Your task to perform on an android device: search for starred emails in the gmail app Image 0: 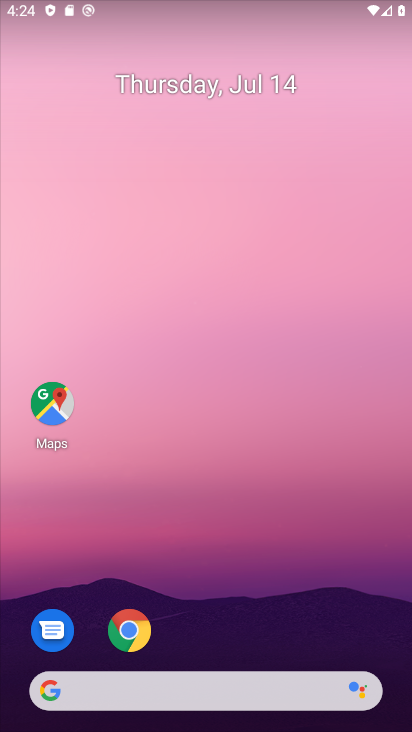
Step 0: drag from (214, 689) to (172, 324)
Your task to perform on an android device: search for starred emails in the gmail app Image 1: 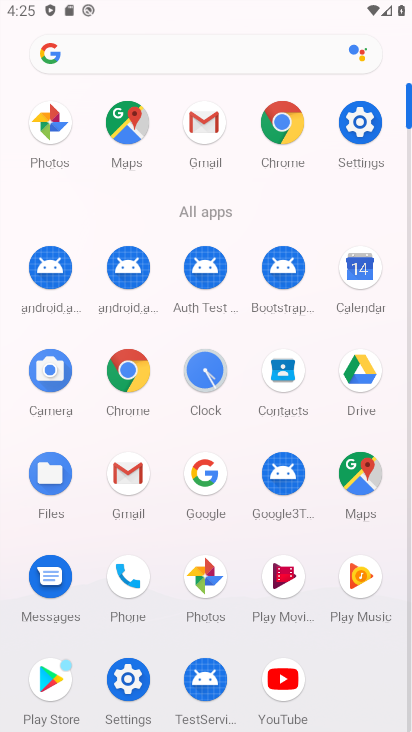
Step 1: click (123, 460)
Your task to perform on an android device: search for starred emails in the gmail app Image 2: 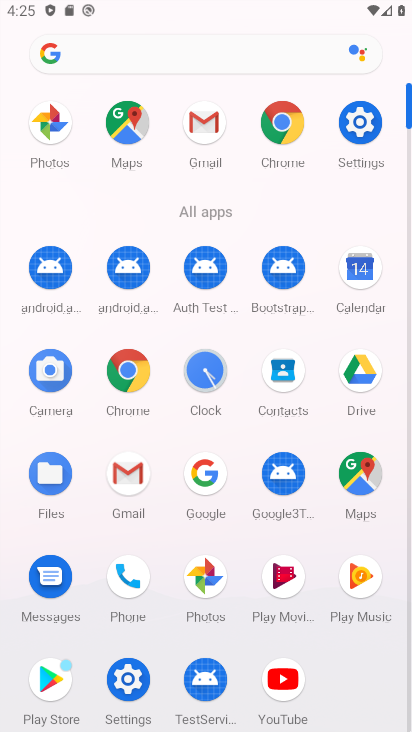
Step 2: click (124, 460)
Your task to perform on an android device: search for starred emails in the gmail app Image 3: 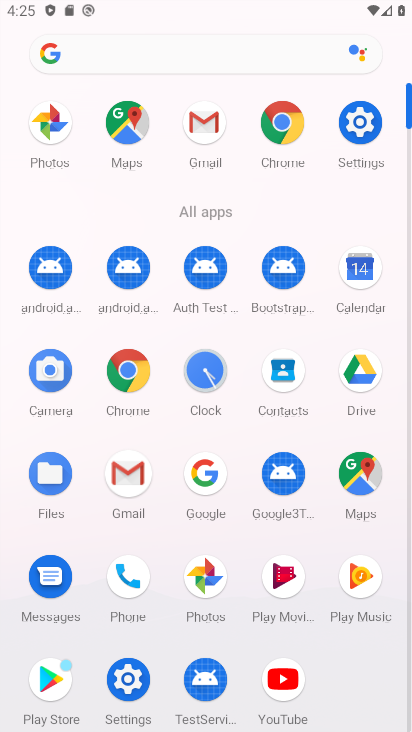
Step 3: click (125, 459)
Your task to perform on an android device: search for starred emails in the gmail app Image 4: 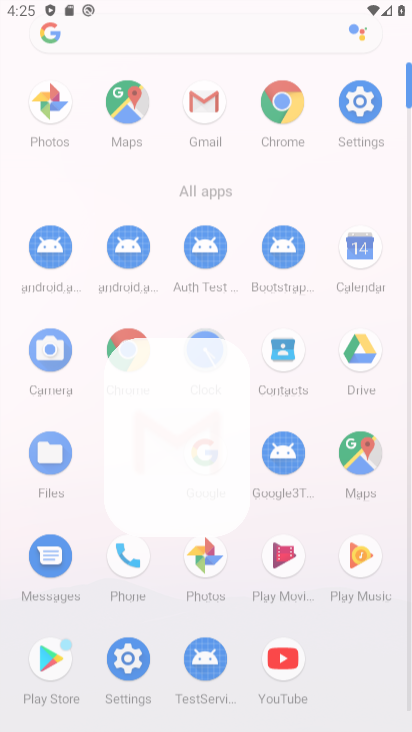
Step 4: click (129, 458)
Your task to perform on an android device: search for starred emails in the gmail app Image 5: 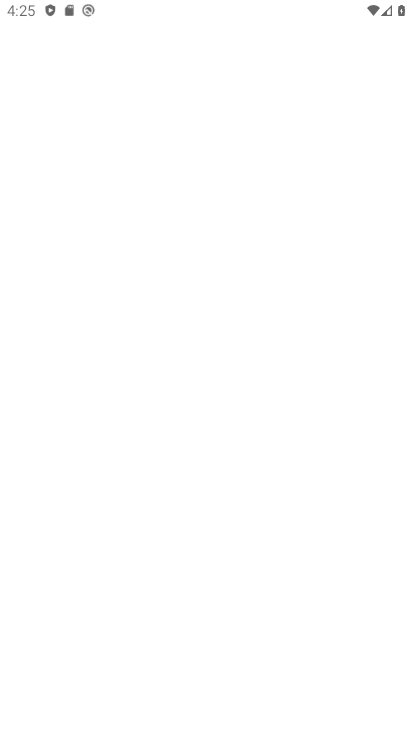
Step 5: click (129, 458)
Your task to perform on an android device: search for starred emails in the gmail app Image 6: 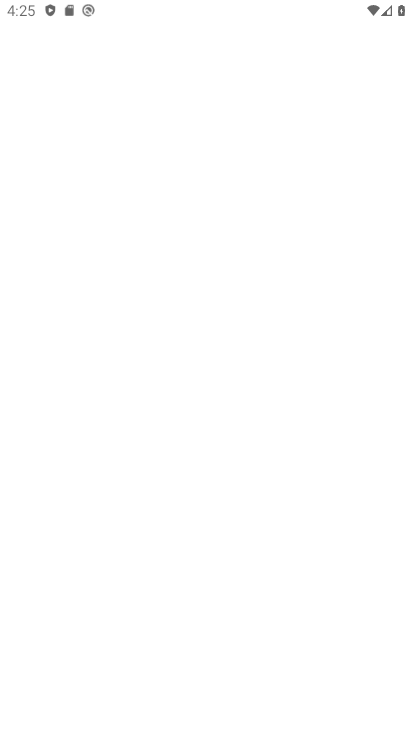
Step 6: click (130, 458)
Your task to perform on an android device: search for starred emails in the gmail app Image 7: 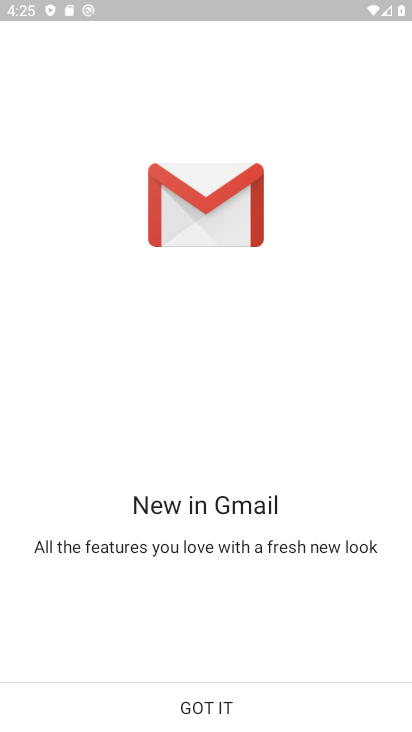
Step 7: click (211, 709)
Your task to perform on an android device: search for starred emails in the gmail app Image 8: 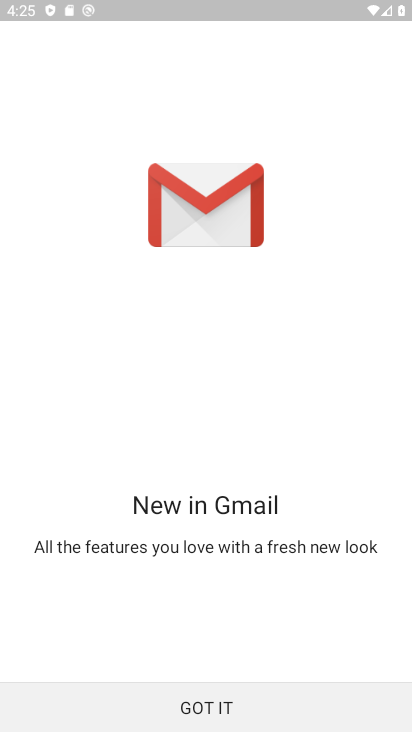
Step 8: click (211, 709)
Your task to perform on an android device: search for starred emails in the gmail app Image 9: 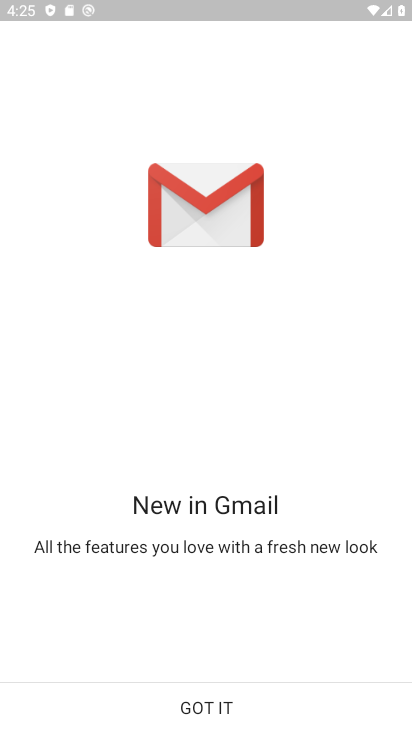
Step 9: click (211, 708)
Your task to perform on an android device: search for starred emails in the gmail app Image 10: 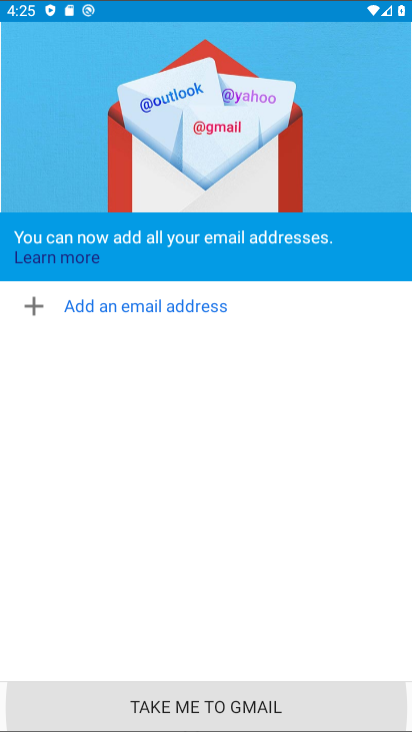
Step 10: click (211, 708)
Your task to perform on an android device: search for starred emails in the gmail app Image 11: 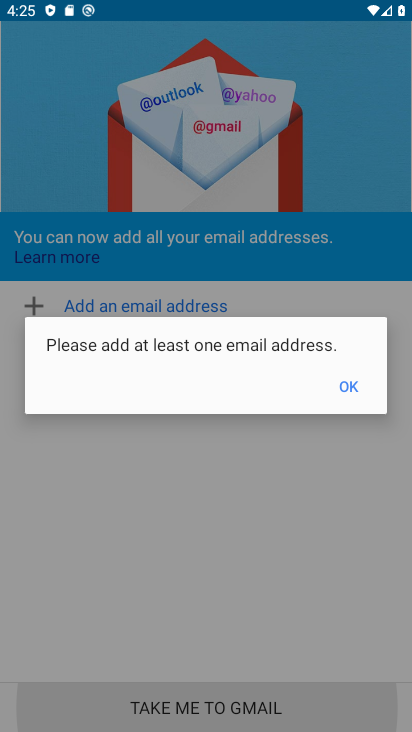
Step 11: click (211, 708)
Your task to perform on an android device: search for starred emails in the gmail app Image 12: 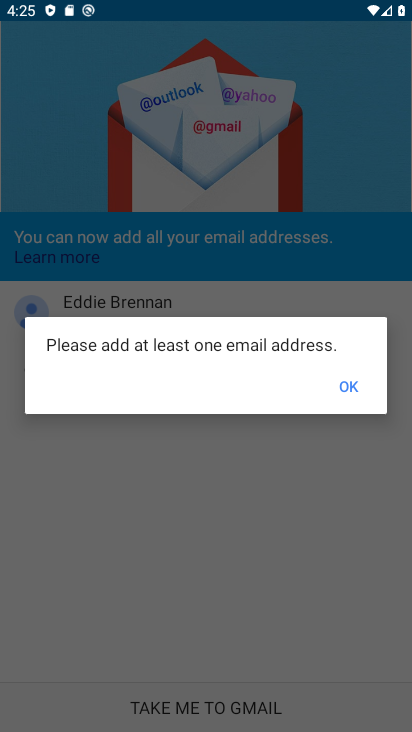
Step 12: click (212, 707)
Your task to perform on an android device: search for starred emails in the gmail app Image 13: 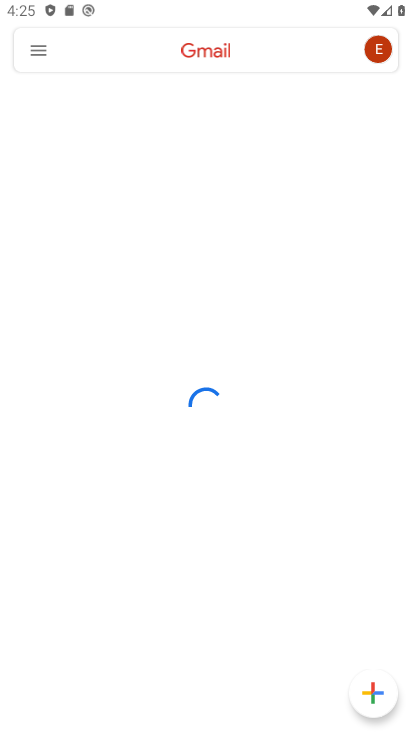
Step 13: drag from (42, 47) to (39, 114)
Your task to perform on an android device: search for starred emails in the gmail app Image 14: 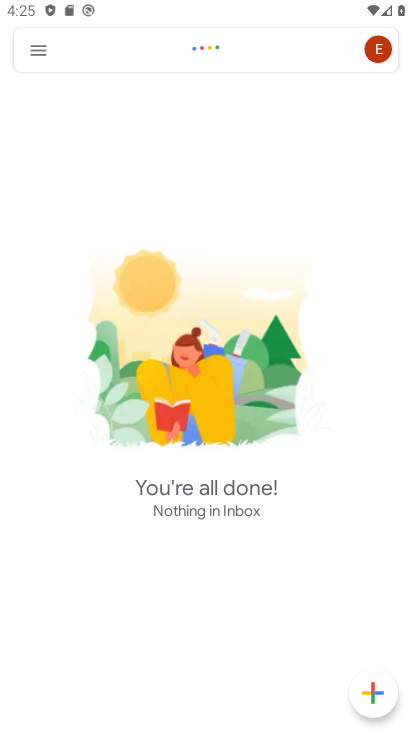
Step 14: click (31, 56)
Your task to perform on an android device: search for starred emails in the gmail app Image 15: 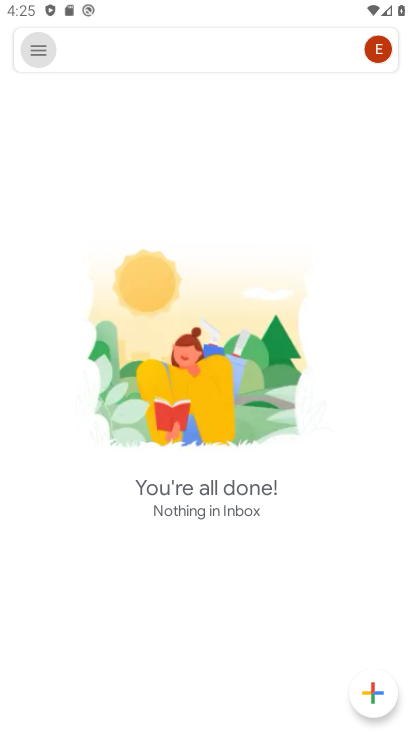
Step 15: click (32, 54)
Your task to perform on an android device: search for starred emails in the gmail app Image 16: 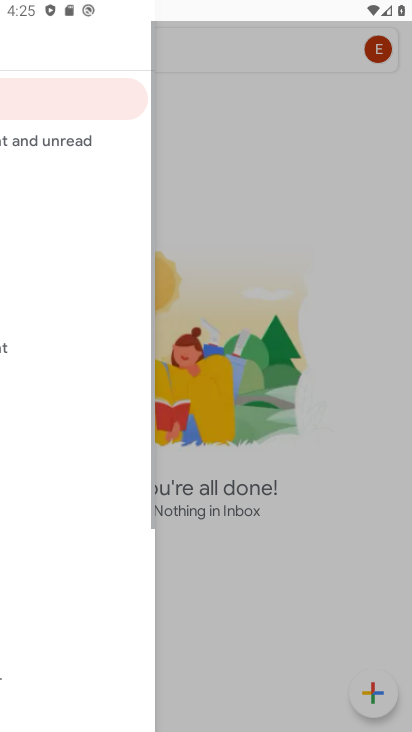
Step 16: drag from (32, 54) to (63, 269)
Your task to perform on an android device: search for starred emails in the gmail app Image 17: 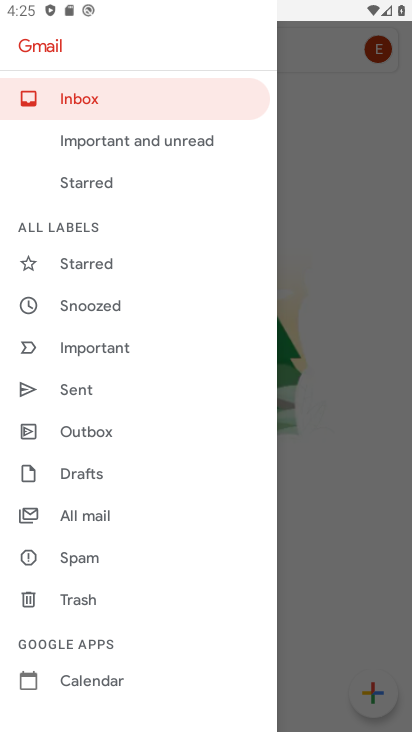
Step 17: click (63, 269)
Your task to perform on an android device: search for starred emails in the gmail app Image 18: 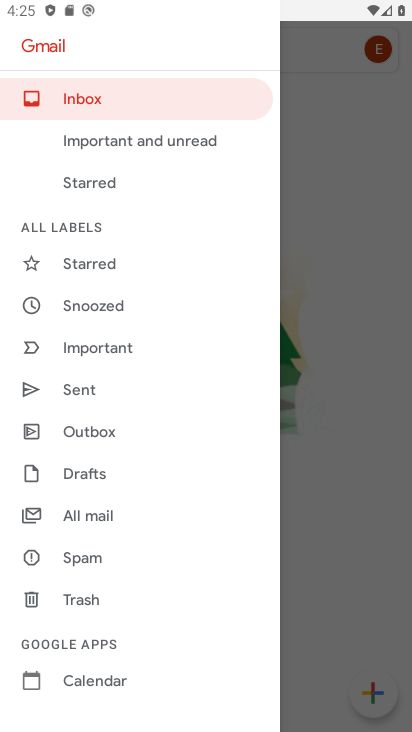
Step 18: click (64, 269)
Your task to perform on an android device: search for starred emails in the gmail app Image 19: 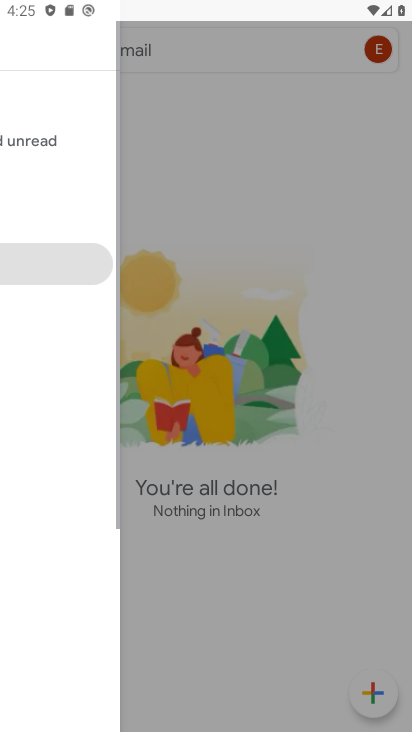
Step 19: click (65, 269)
Your task to perform on an android device: search for starred emails in the gmail app Image 20: 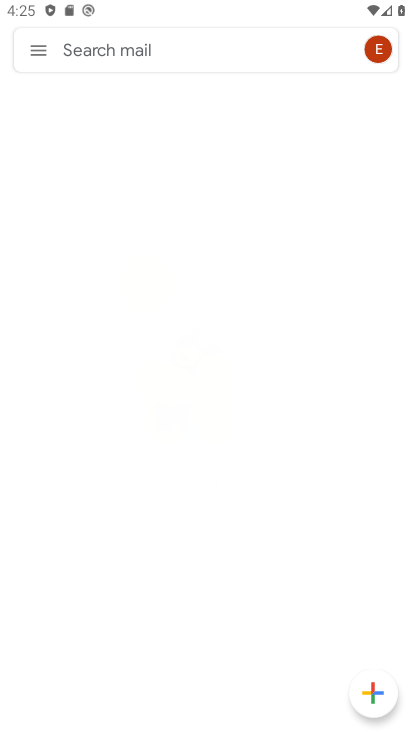
Step 20: click (67, 268)
Your task to perform on an android device: search for starred emails in the gmail app Image 21: 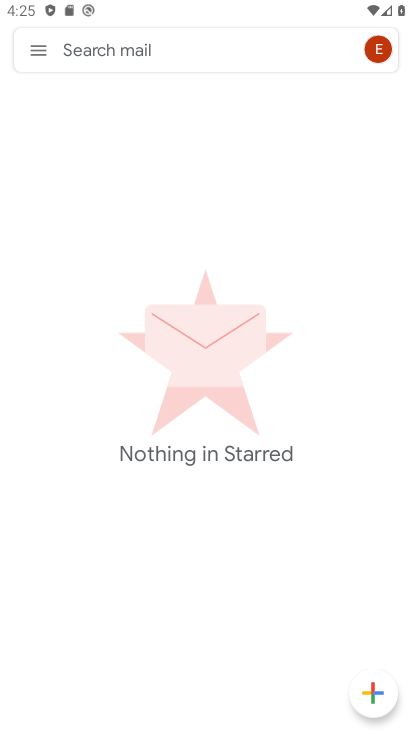
Step 21: task complete